Your task to perform on an android device: open the mobile data screen to see how much data has been used Image 0: 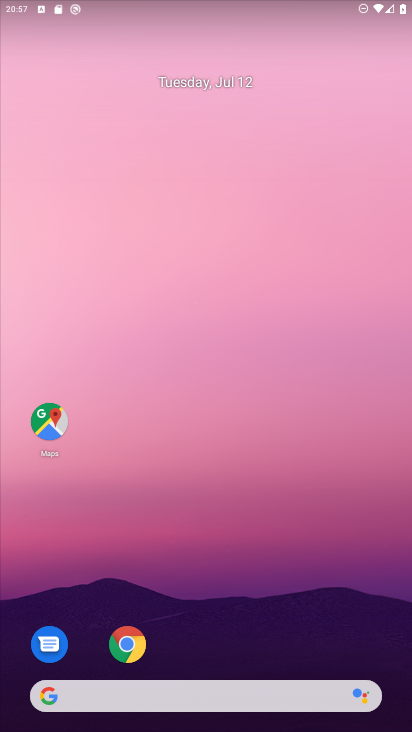
Step 0: drag from (366, 688) to (265, 131)
Your task to perform on an android device: open the mobile data screen to see how much data has been used Image 1: 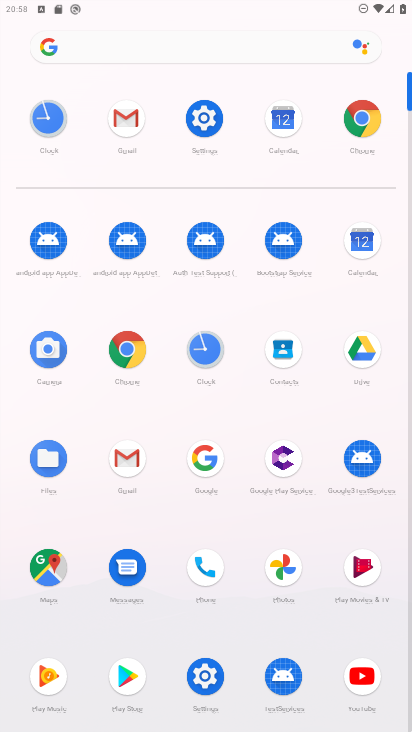
Step 1: click (206, 676)
Your task to perform on an android device: open the mobile data screen to see how much data has been used Image 2: 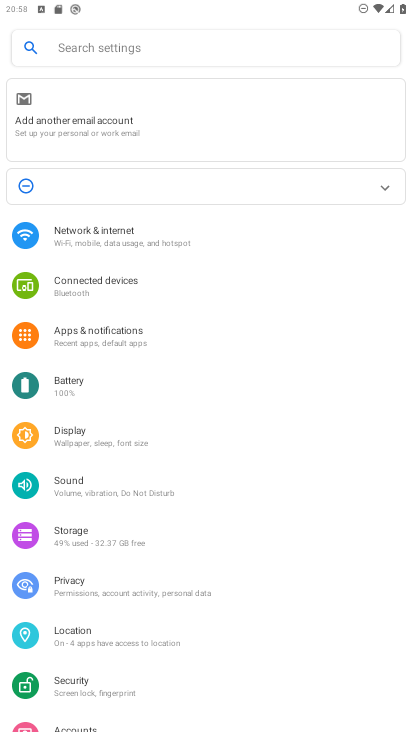
Step 2: click (94, 225)
Your task to perform on an android device: open the mobile data screen to see how much data has been used Image 3: 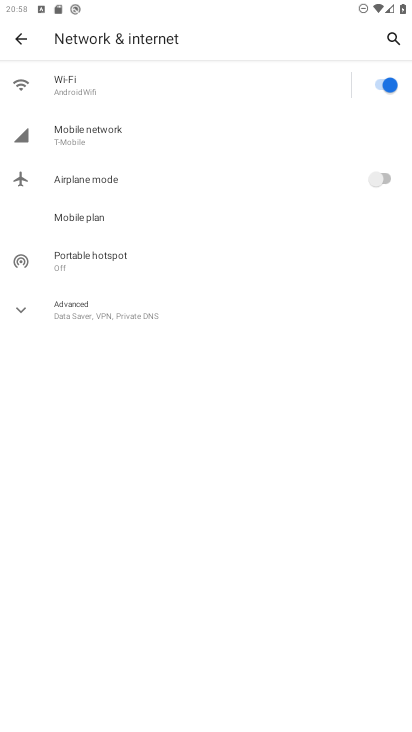
Step 3: click (96, 130)
Your task to perform on an android device: open the mobile data screen to see how much data has been used Image 4: 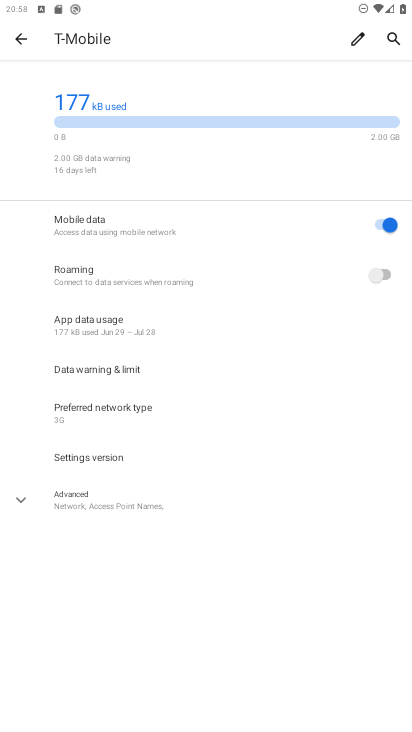
Step 4: task complete